Your task to perform on an android device: Search for pizza restaurants on Maps Image 0: 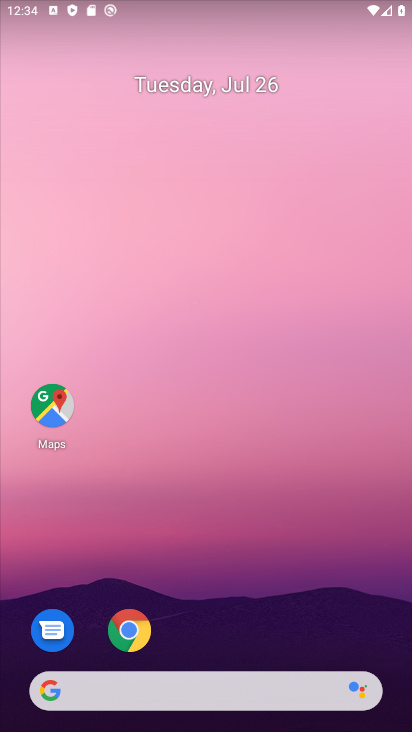
Step 0: click (50, 408)
Your task to perform on an android device: Search for pizza restaurants on Maps Image 1: 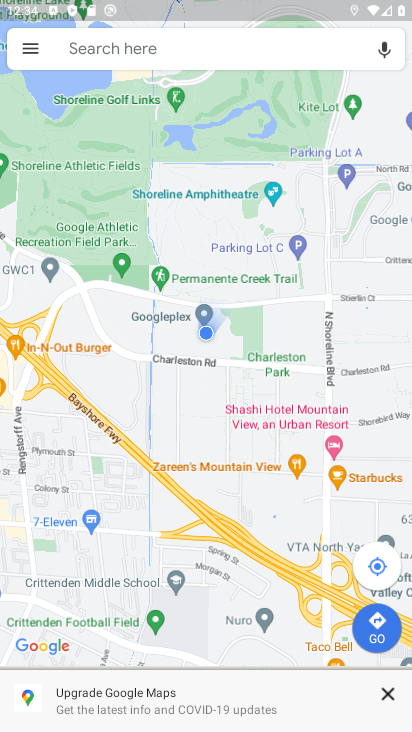
Step 1: click (125, 47)
Your task to perform on an android device: Search for pizza restaurants on Maps Image 2: 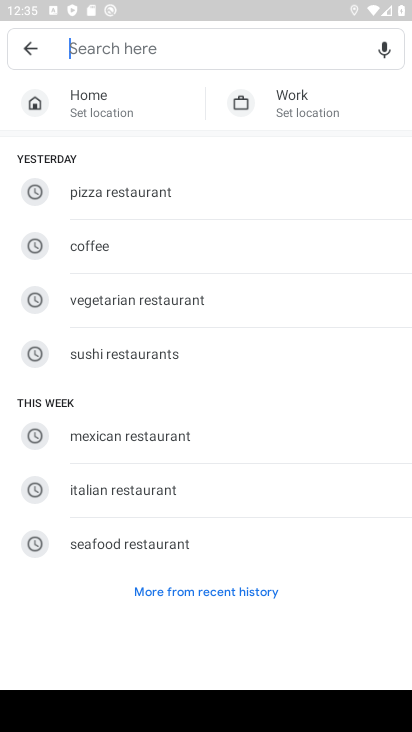
Step 2: type "pizza restaurants"
Your task to perform on an android device: Search for pizza restaurants on Maps Image 3: 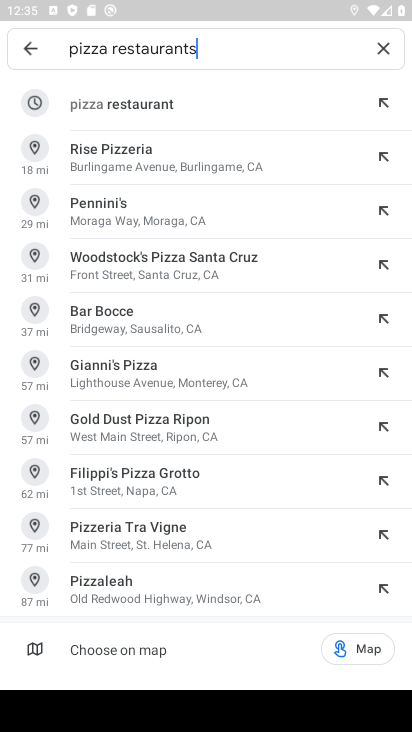
Step 3: click (103, 100)
Your task to perform on an android device: Search for pizza restaurants on Maps Image 4: 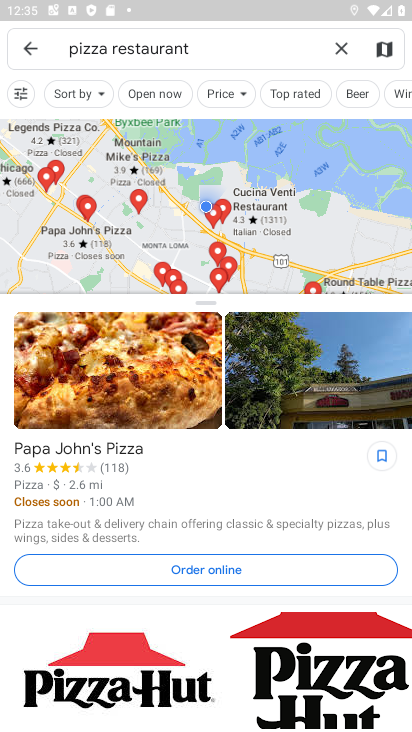
Step 4: task complete